Your task to perform on an android device: turn off location Image 0: 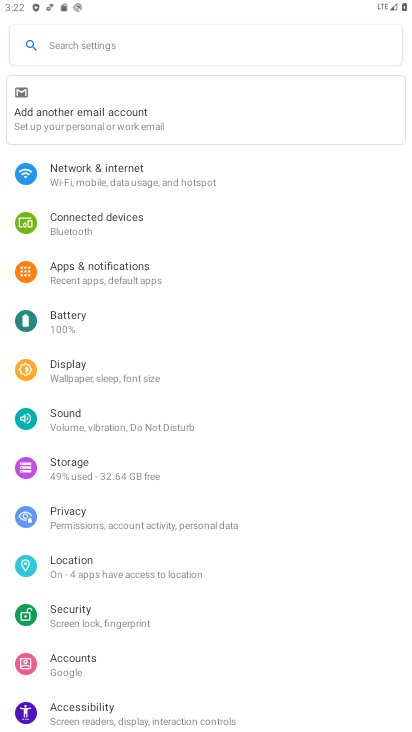
Step 0: click (73, 567)
Your task to perform on an android device: turn off location Image 1: 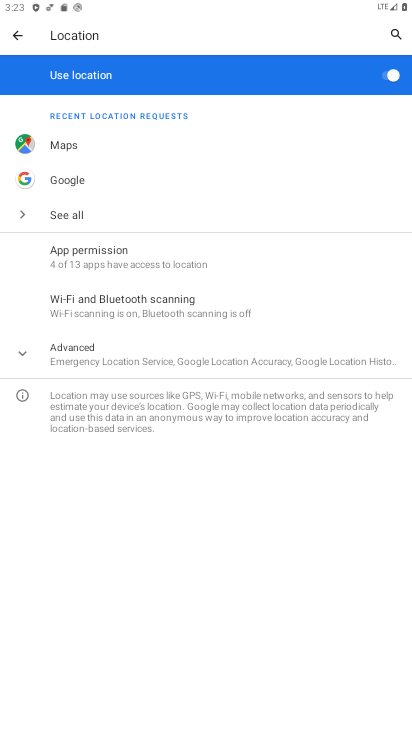
Step 1: click (395, 81)
Your task to perform on an android device: turn off location Image 2: 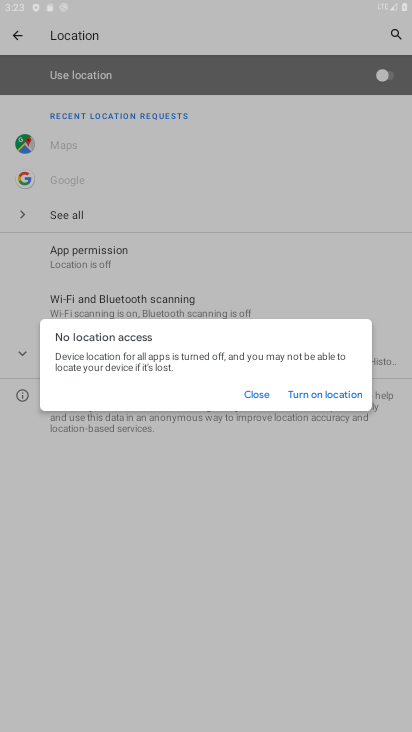
Step 2: task complete